Your task to perform on an android device: open a bookmark in the chrome app Image 0: 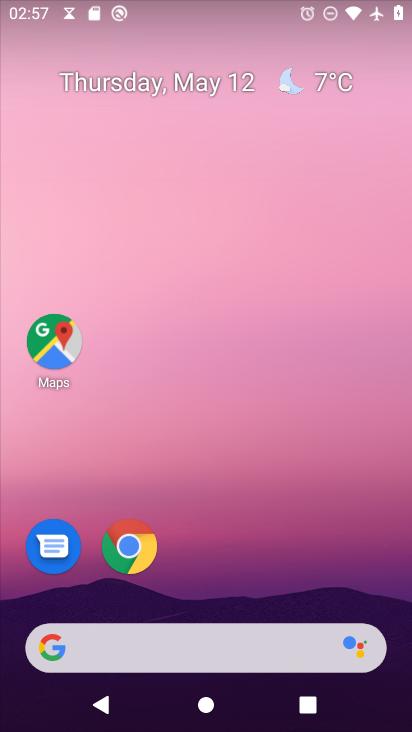
Step 0: drag from (132, 651) to (255, 194)
Your task to perform on an android device: open a bookmark in the chrome app Image 1: 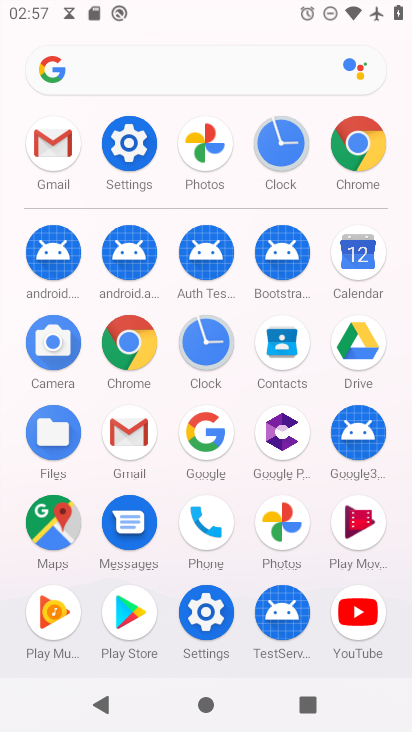
Step 1: click (351, 149)
Your task to perform on an android device: open a bookmark in the chrome app Image 2: 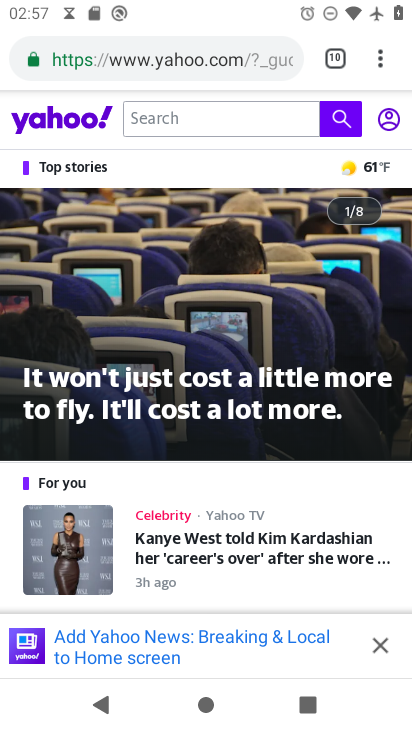
Step 2: task complete